Your task to perform on an android device: stop showing notifications on the lock screen Image 0: 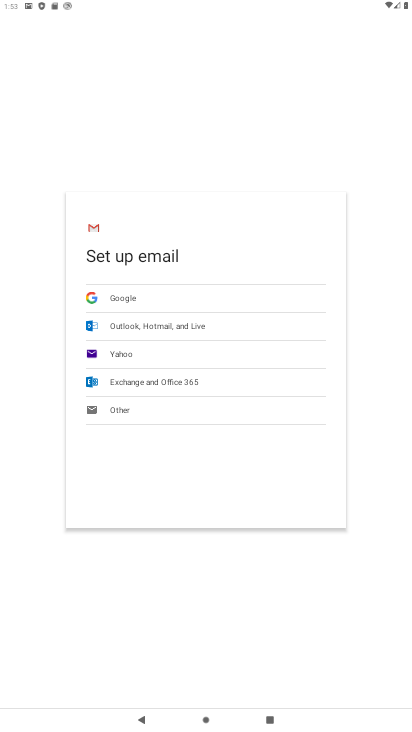
Step 0: press home button
Your task to perform on an android device: stop showing notifications on the lock screen Image 1: 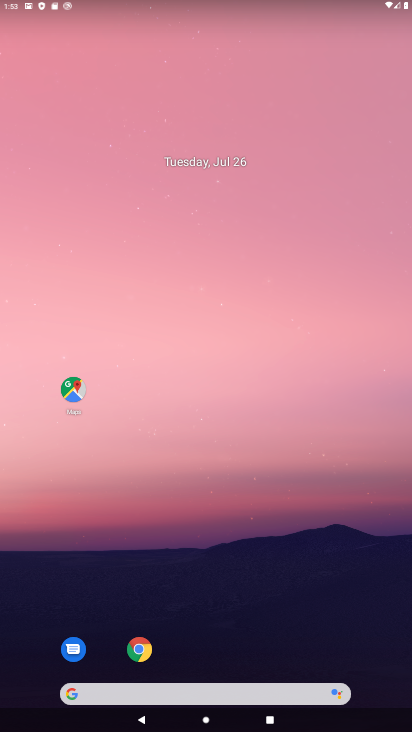
Step 1: drag from (169, 695) to (394, 145)
Your task to perform on an android device: stop showing notifications on the lock screen Image 2: 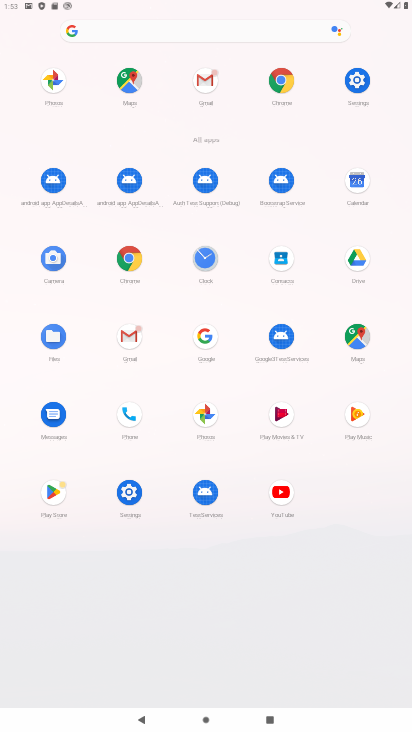
Step 2: click (356, 80)
Your task to perform on an android device: stop showing notifications on the lock screen Image 3: 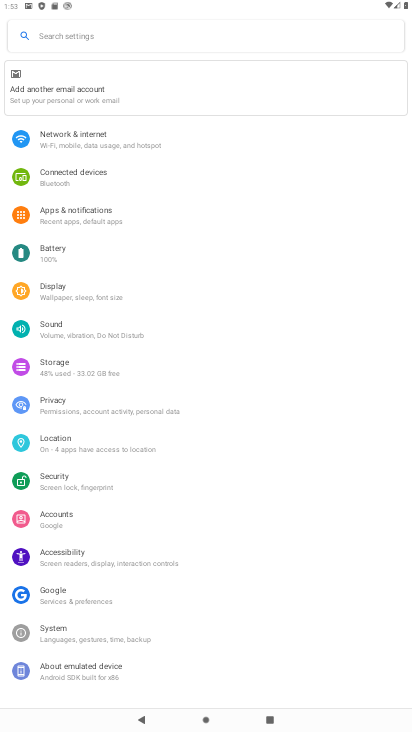
Step 3: click (77, 220)
Your task to perform on an android device: stop showing notifications on the lock screen Image 4: 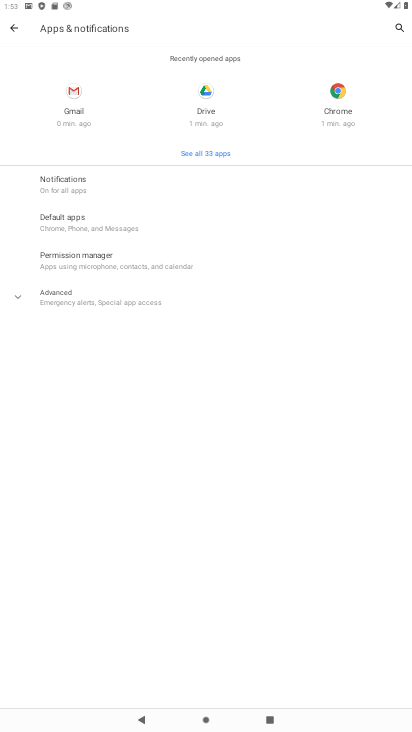
Step 4: click (71, 181)
Your task to perform on an android device: stop showing notifications on the lock screen Image 5: 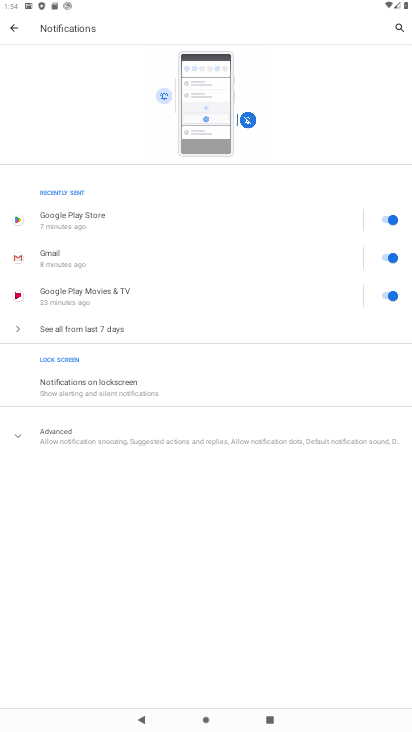
Step 5: click (86, 387)
Your task to perform on an android device: stop showing notifications on the lock screen Image 6: 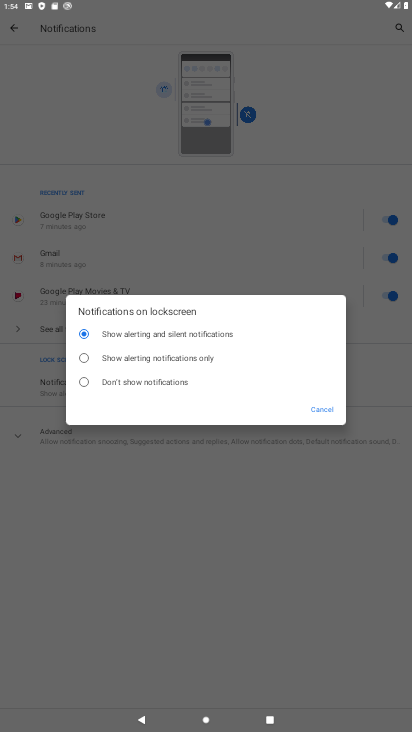
Step 6: click (86, 383)
Your task to perform on an android device: stop showing notifications on the lock screen Image 7: 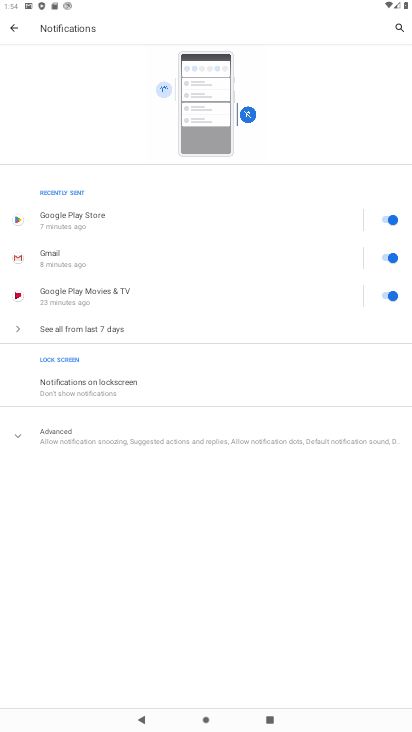
Step 7: task complete